Your task to perform on an android device: Play the last video I watched on Youtube Image 0: 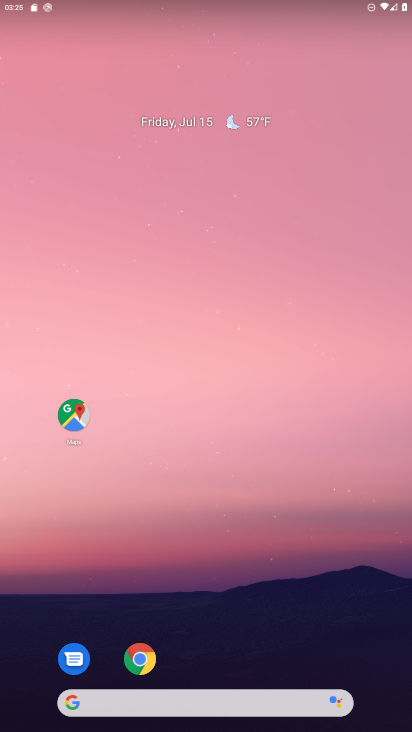
Step 0: drag from (211, 646) to (302, 84)
Your task to perform on an android device: Play the last video I watched on Youtube Image 1: 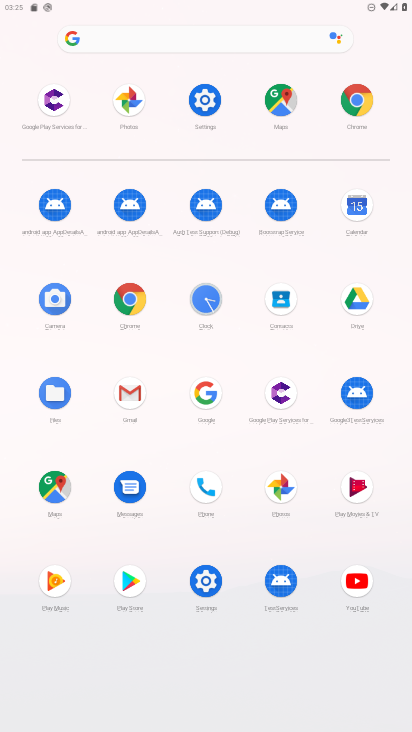
Step 1: click (364, 583)
Your task to perform on an android device: Play the last video I watched on Youtube Image 2: 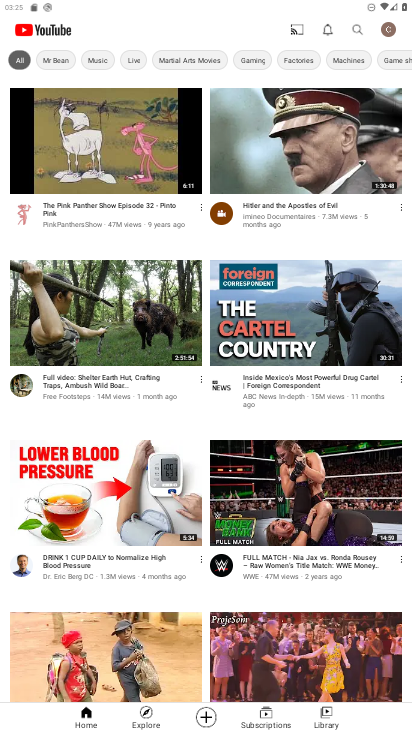
Step 2: click (328, 724)
Your task to perform on an android device: Play the last video I watched on Youtube Image 3: 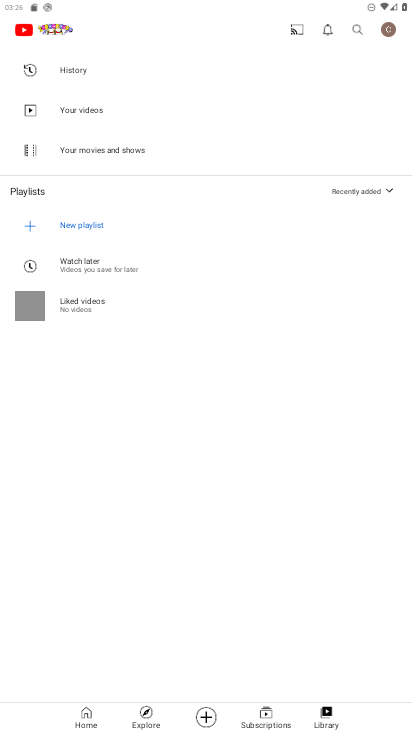
Step 3: task complete